Your task to perform on an android device: Do I have any events this weekend? Image 0: 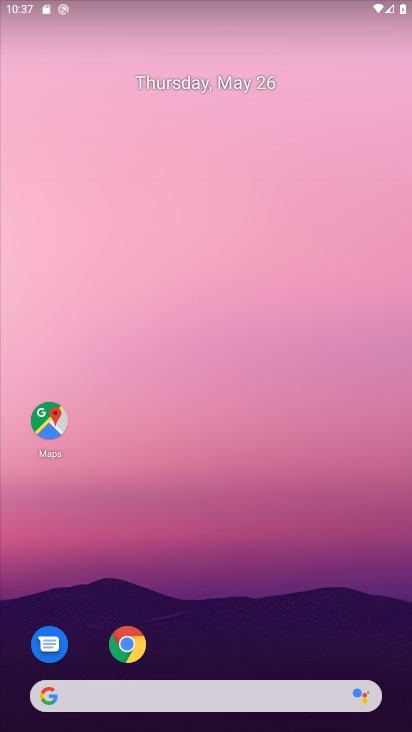
Step 0: drag from (372, 642) to (381, 199)
Your task to perform on an android device: Do I have any events this weekend? Image 1: 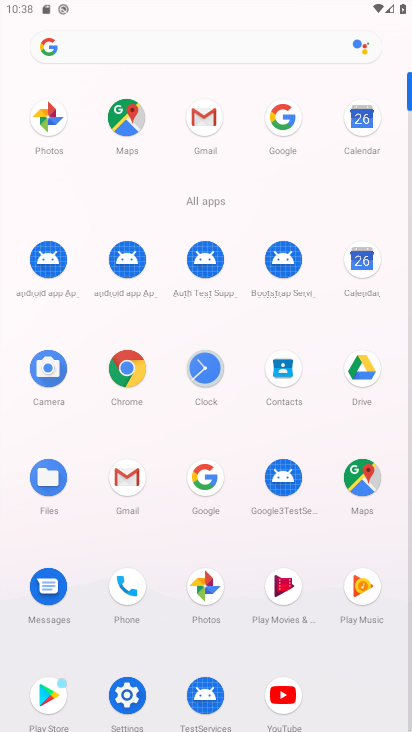
Step 1: click (362, 265)
Your task to perform on an android device: Do I have any events this weekend? Image 2: 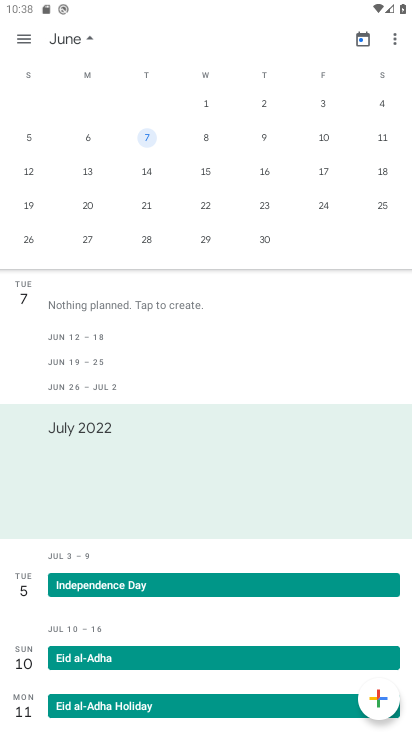
Step 2: drag from (39, 97) to (392, 165)
Your task to perform on an android device: Do I have any events this weekend? Image 3: 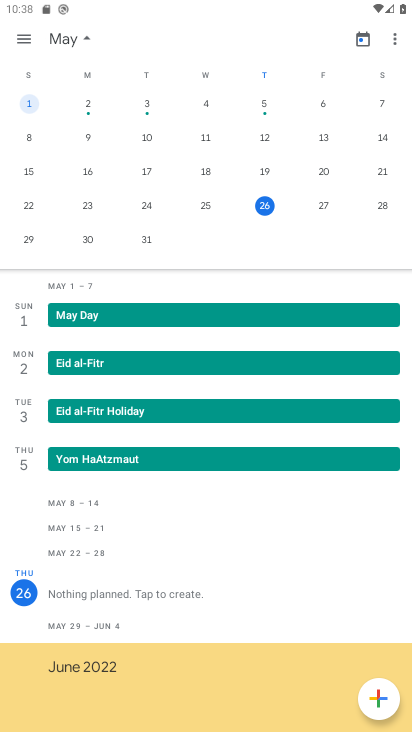
Step 3: click (382, 203)
Your task to perform on an android device: Do I have any events this weekend? Image 4: 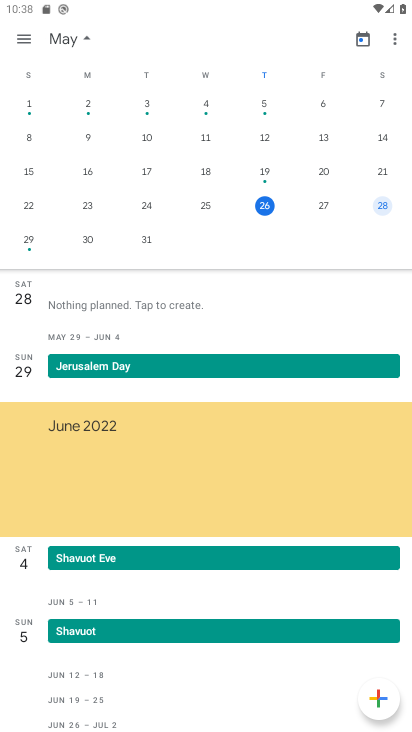
Step 4: click (165, 321)
Your task to perform on an android device: Do I have any events this weekend? Image 5: 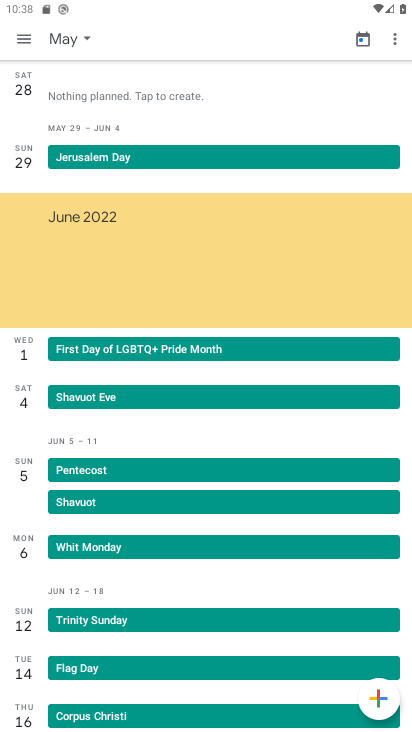
Step 5: task complete